Your task to perform on an android device: check the backup settings in the google photos Image 0: 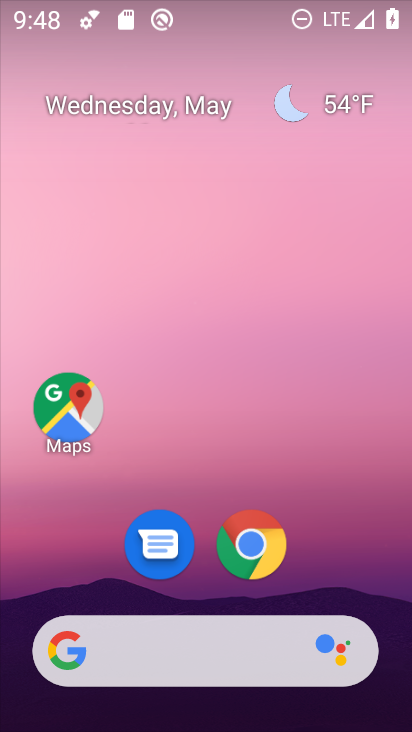
Step 0: drag from (204, 591) to (200, 108)
Your task to perform on an android device: check the backup settings in the google photos Image 1: 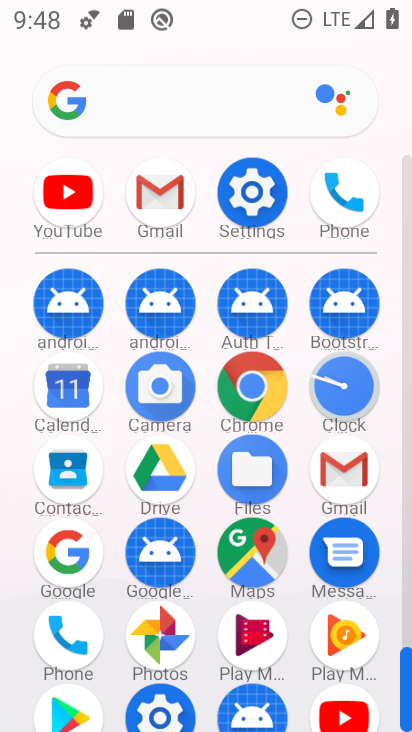
Step 1: click (133, 667)
Your task to perform on an android device: check the backup settings in the google photos Image 2: 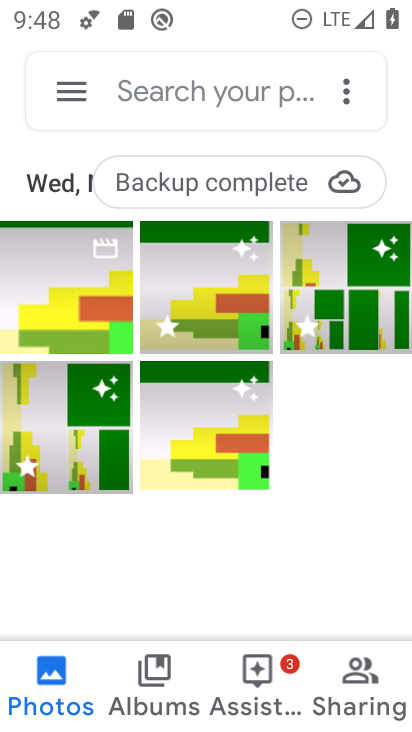
Step 2: click (57, 118)
Your task to perform on an android device: check the backup settings in the google photos Image 3: 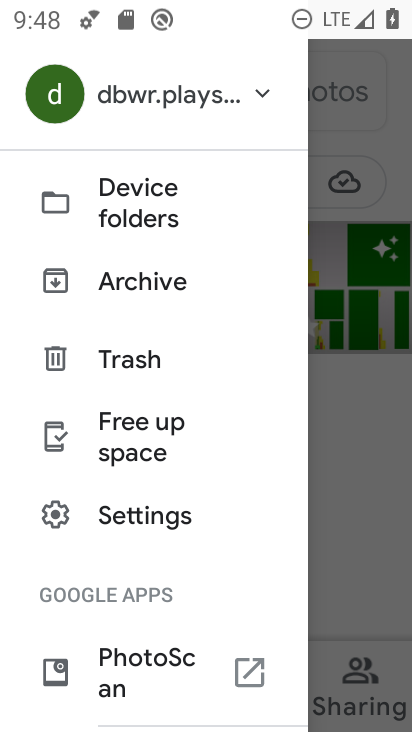
Step 3: click (107, 507)
Your task to perform on an android device: check the backup settings in the google photos Image 4: 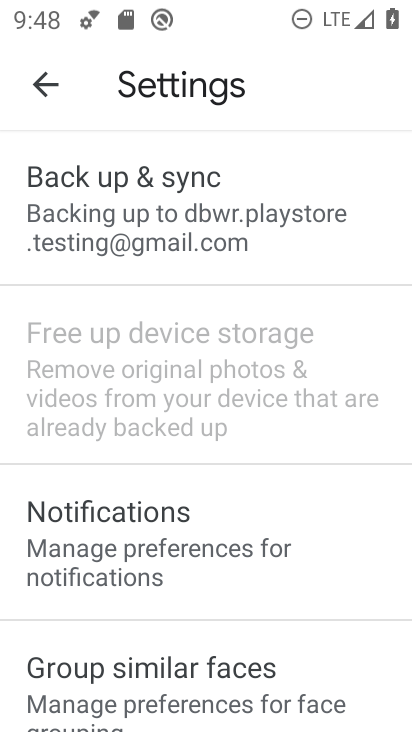
Step 4: click (235, 188)
Your task to perform on an android device: check the backup settings in the google photos Image 5: 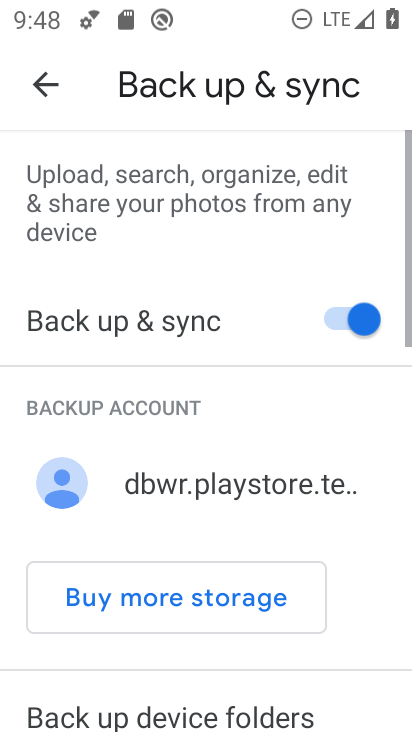
Step 5: task complete